Your task to perform on an android device: Open network settings Image 0: 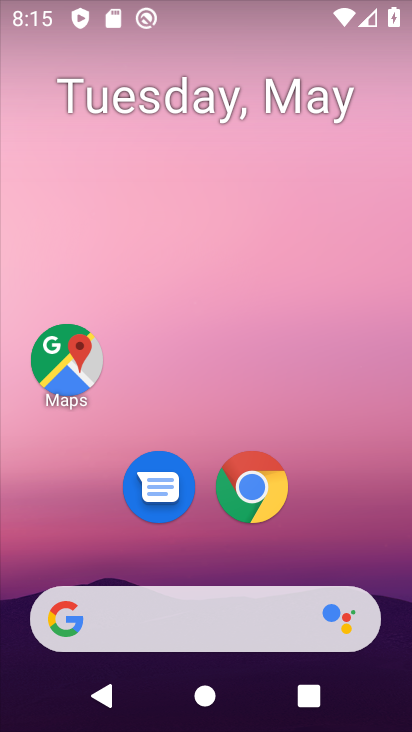
Step 0: drag from (235, 691) to (191, 149)
Your task to perform on an android device: Open network settings Image 1: 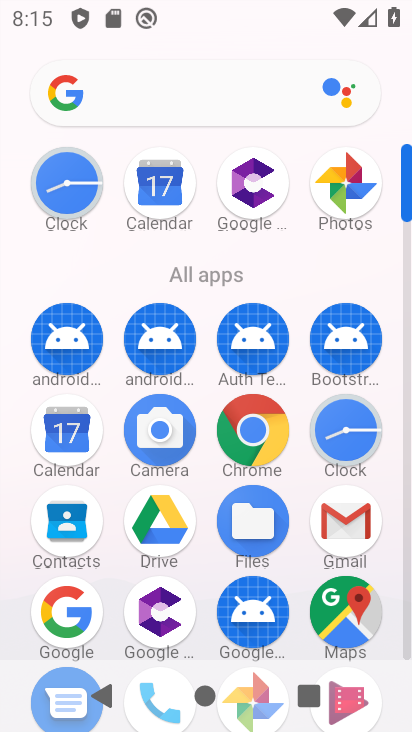
Step 1: drag from (216, 573) to (217, 305)
Your task to perform on an android device: Open network settings Image 2: 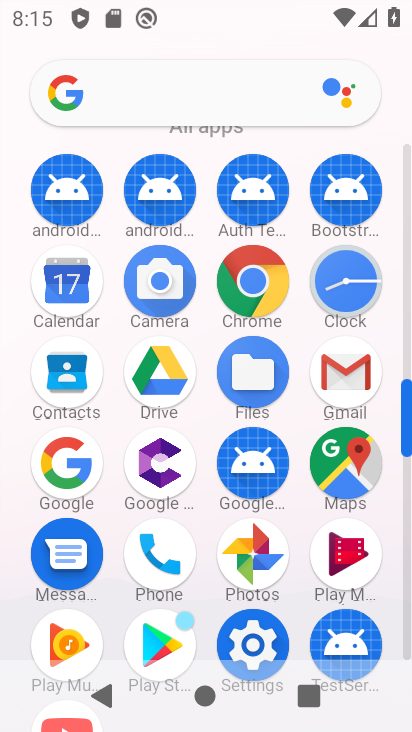
Step 2: click (257, 634)
Your task to perform on an android device: Open network settings Image 3: 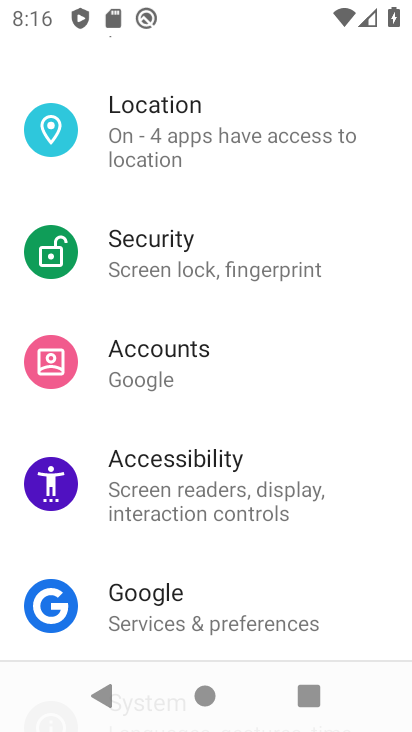
Step 3: drag from (242, 148) to (247, 483)
Your task to perform on an android device: Open network settings Image 4: 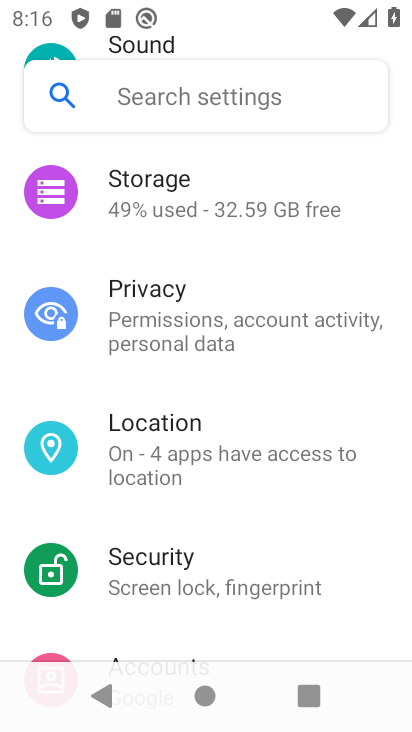
Step 4: drag from (247, 183) to (228, 572)
Your task to perform on an android device: Open network settings Image 5: 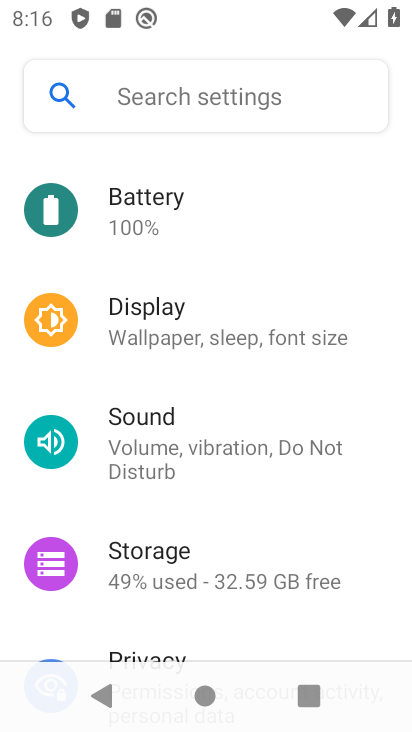
Step 5: drag from (211, 211) to (201, 537)
Your task to perform on an android device: Open network settings Image 6: 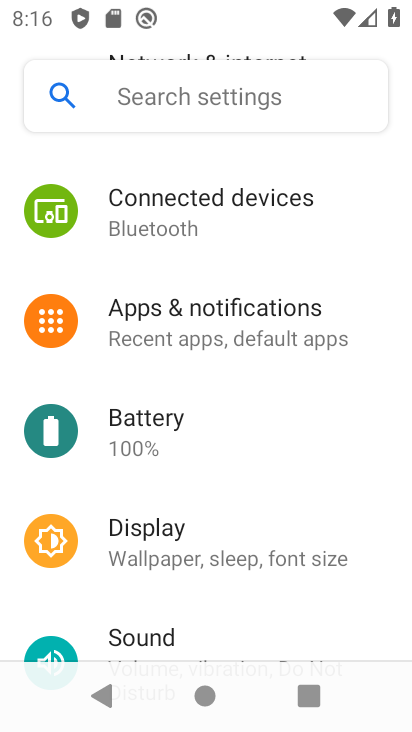
Step 6: drag from (221, 238) to (210, 553)
Your task to perform on an android device: Open network settings Image 7: 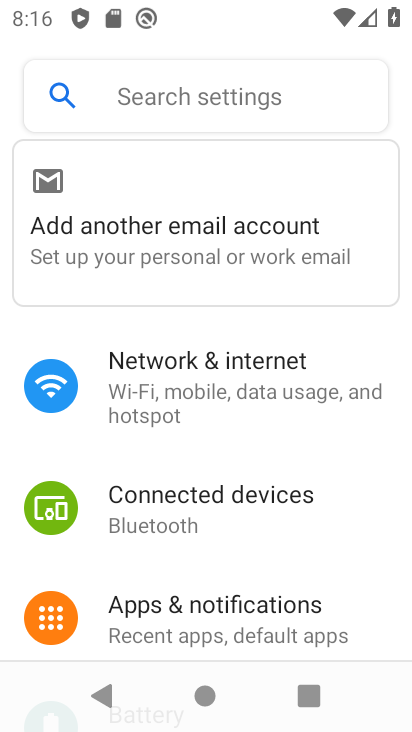
Step 7: click (169, 379)
Your task to perform on an android device: Open network settings Image 8: 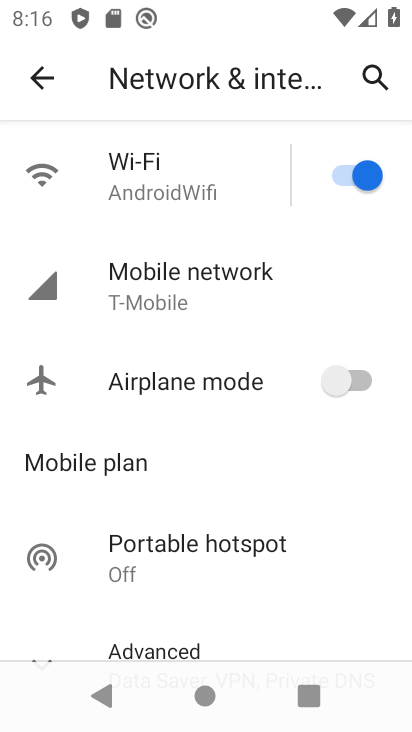
Step 8: click (189, 284)
Your task to perform on an android device: Open network settings Image 9: 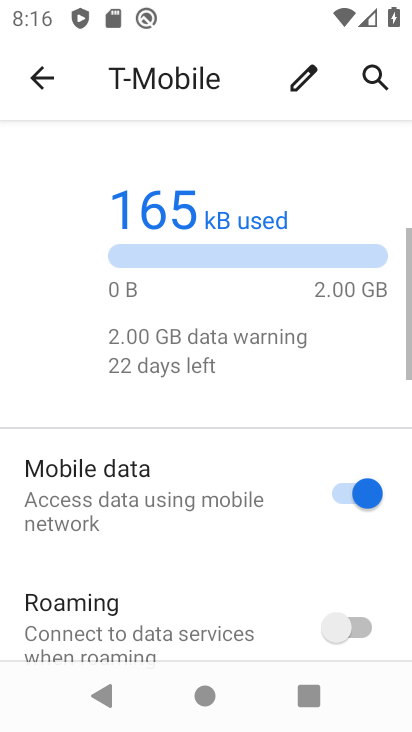
Step 9: task complete